Your task to perform on an android device: Go to Reddit.com Image 0: 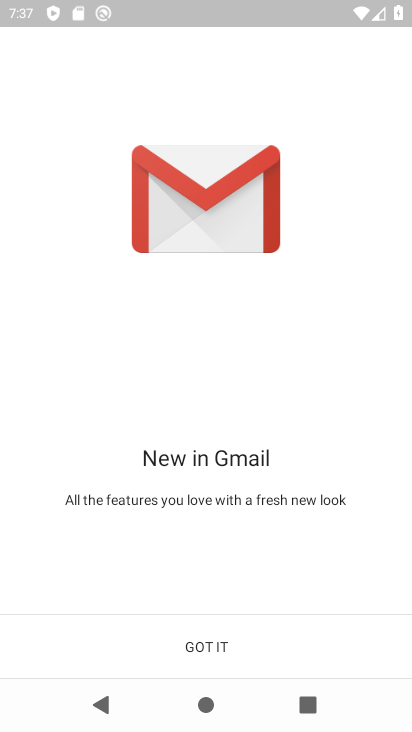
Step 0: press home button
Your task to perform on an android device: Go to Reddit.com Image 1: 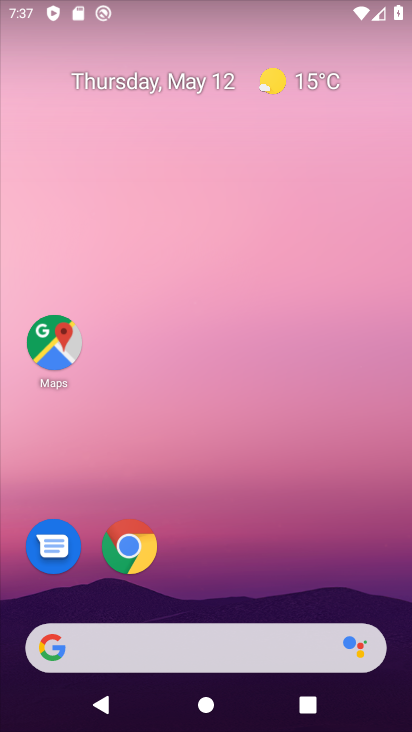
Step 1: click (138, 561)
Your task to perform on an android device: Go to Reddit.com Image 2: 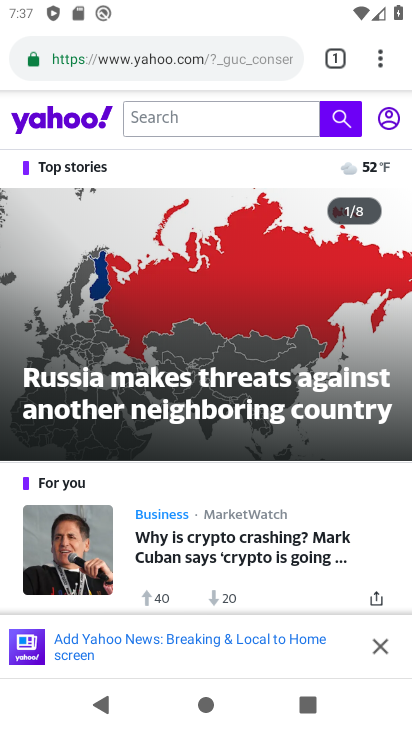
Step 2: click (379, 58)
Your task to perform on an android device: Go to Reddit.com Image 3: 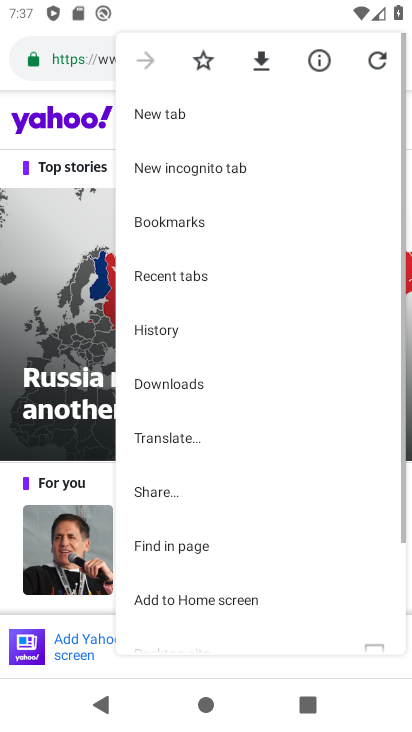
Step 3: drag from (379, 57) to (176, 109)
Your task to perform on an android device: Go to Reddit.com Image 4: 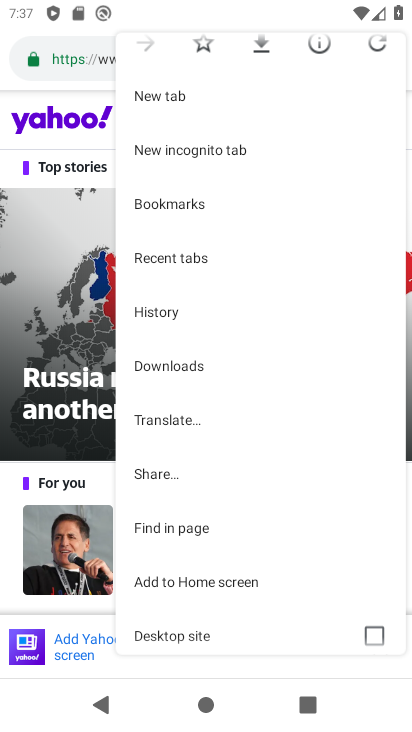
Step 4: click (172, 96)
Your task to perform on an android device: Go to Reddit.com Image 5: 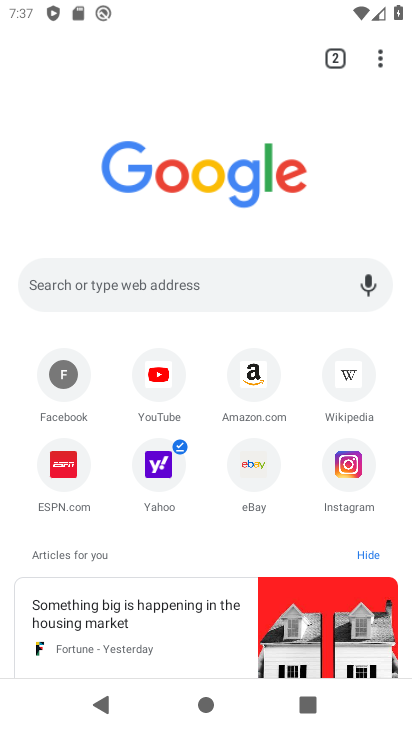
Step 5: click (85, 285)
Your task to perform on an android device: Go to Reddit.com Image 6: 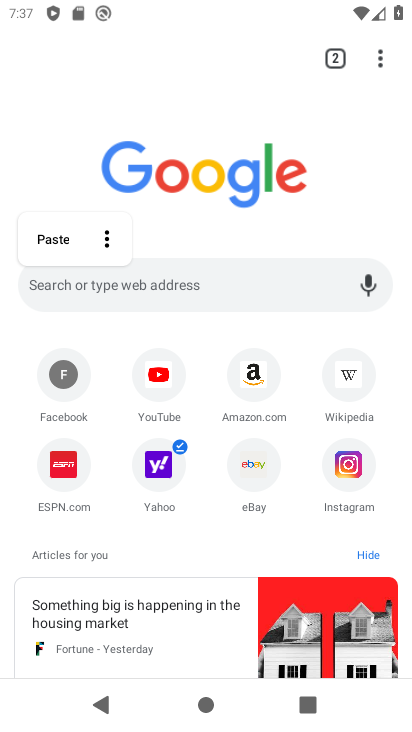
Step 6: type "re"
Your task to perform on an android device: Go to Reddit.com Image 7: 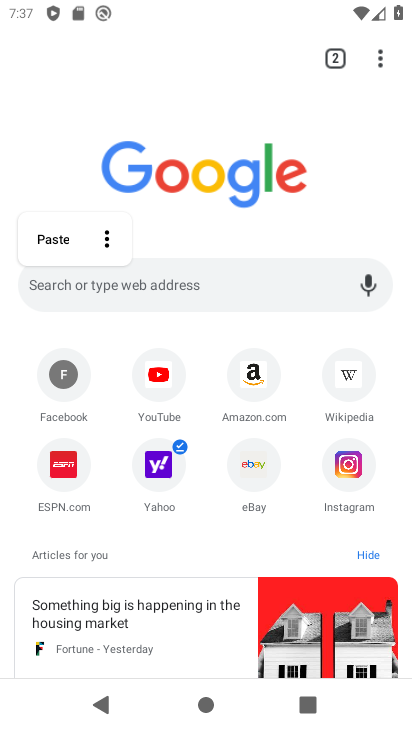
Step 7: click (73, 283)
Your task to perform on an android device: Go to Reddit.com Image 8: 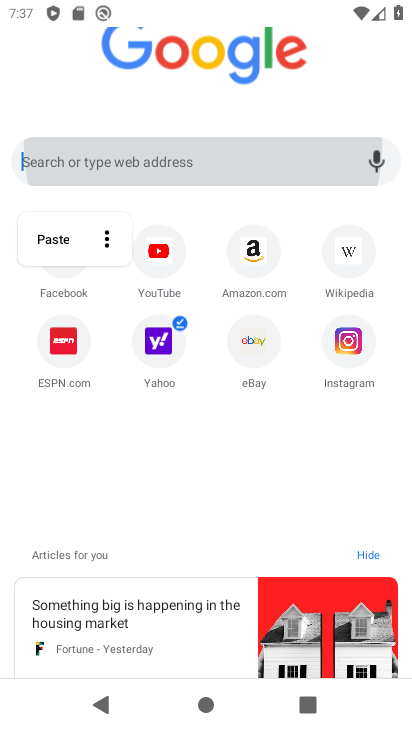
Step 8: click (62, 283)
Your task to perform on an android device: Go to Reddit.com Image 9: 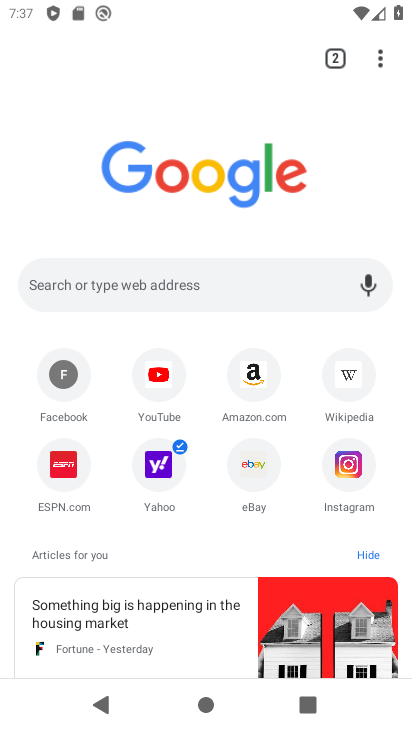
Step 9: click (43, 284)
Your task to perform on an android device: Go to Reddit.com Image 10: 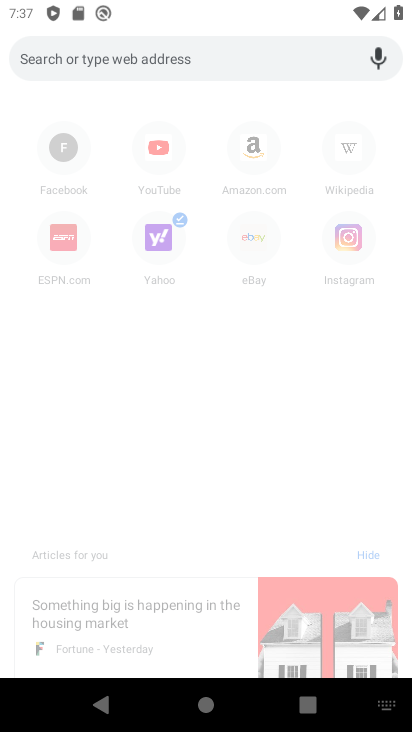
Step 10: type "reddit.com"
Your task to perform on an android device: Go to Reddit.com Image 11: 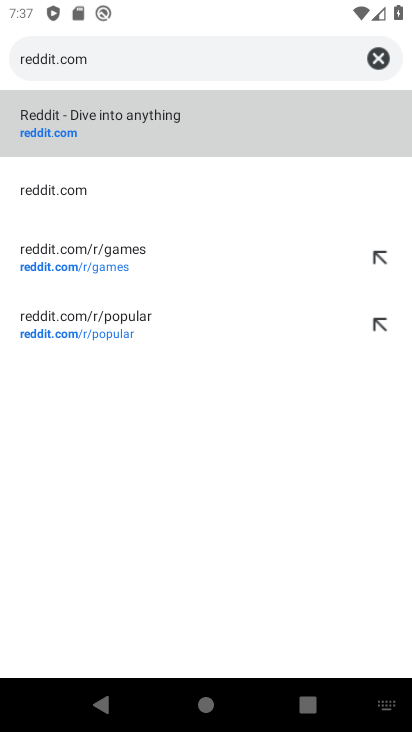
Step 11: click (164, 129)
Your task to perform on an android device: Go to Reddit.com Image 12: 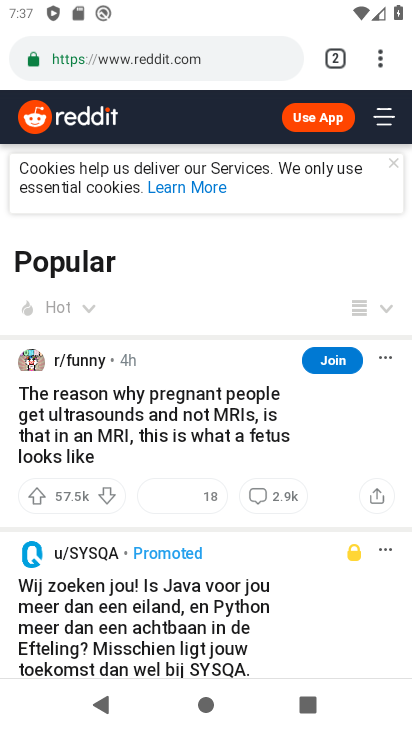
Step 12: task complete